Your task to perform on an android device: Open location settings Image 0: 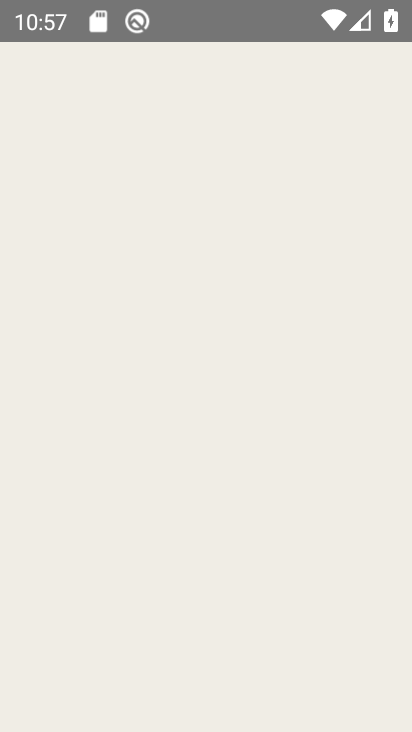
Step 0: press home button
Your task to perform on an android device: Open location settings Image 1: 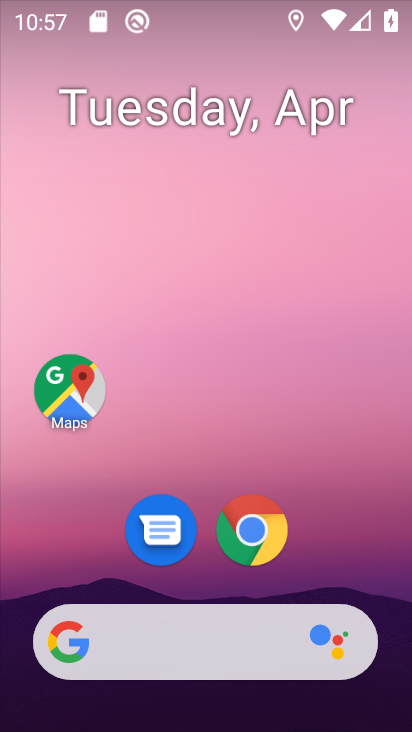
Step 1: drag from (177, 641) to (332, 95)
Your task to perform on an android device: Open location settings Image 2: 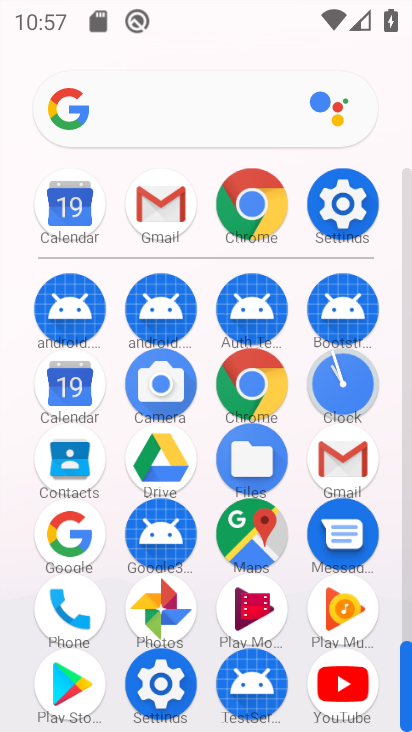
Step 2: click (354, 214)
Your task to perform on an android device: Open location settings Image 3: 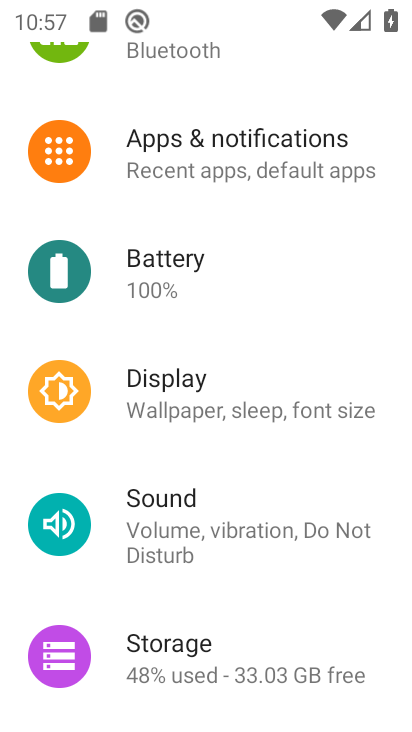
Step 3: drag from (238, 529) to (376, 180)
Your task to perform on an android device: Open location settings Image 4: 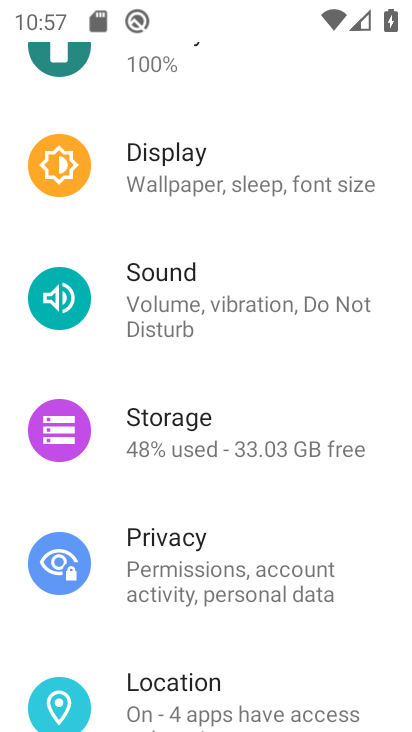
Step 4: drag from (229, 642) to (410, 158)
Your task to perform on an android device: Open location settings Image 5: 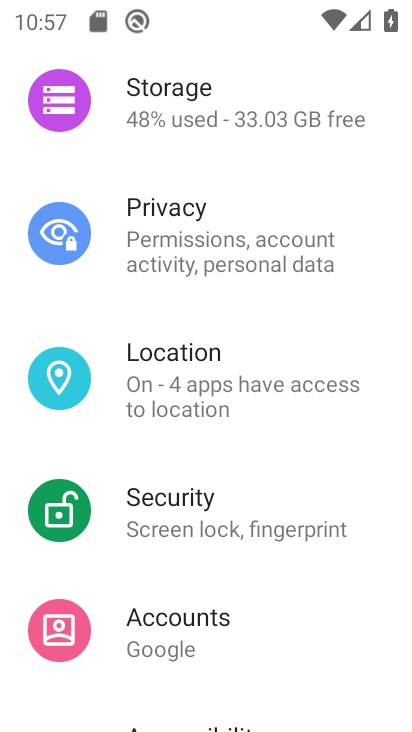
Step 5: click (173, 351)
Your task to perform on an android device: Open location settings Image 6: 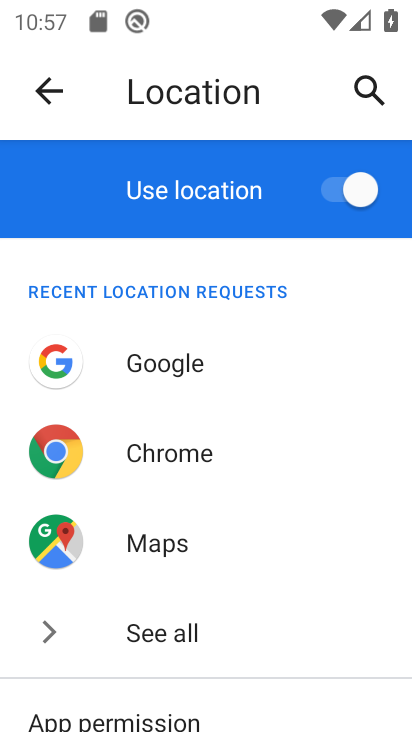
Step 6: task complete